Your task to perform on an android device: Open calendar and show me the third week of next month Image 0: 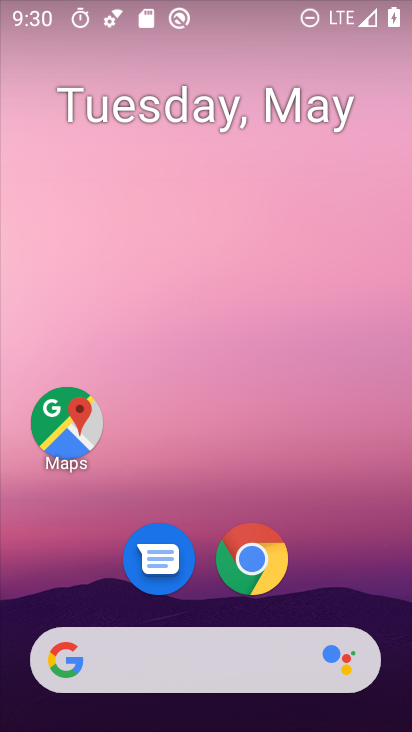
Step 0: drag from (378, 632) to (265, 47)
Your task to perform on an android device: Open calendar and show me the third week of next month Image 1: 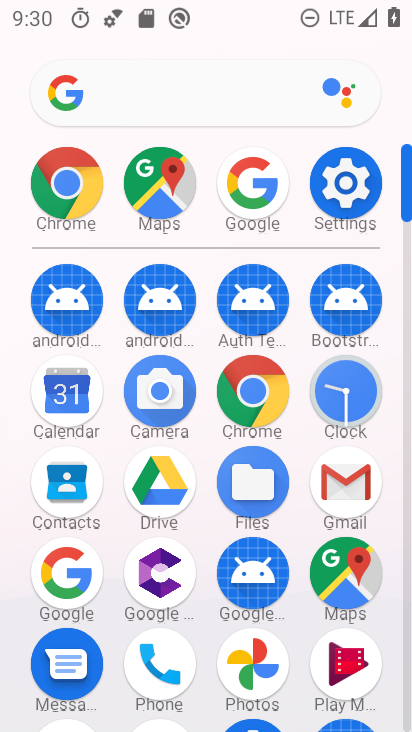
Step 1: click (59, 400)
Your task to perform on an android device: Open calendar and show me the third week of next month Image 2: 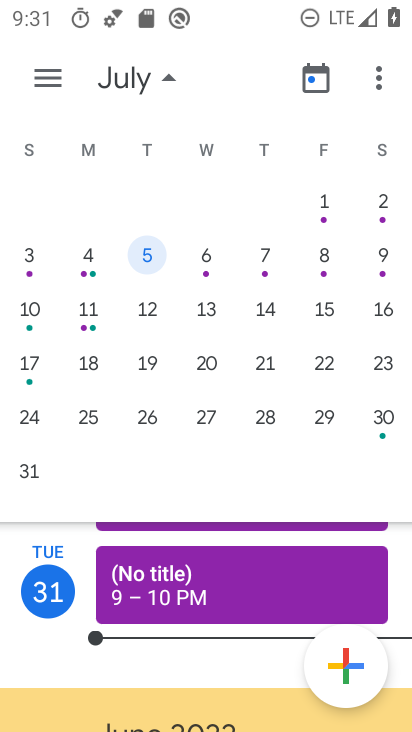
Step 2: drag from (349, 325) to (81, 308)
Your task to perform on an android device: Open calendar and show me the third week of next month Image 3: 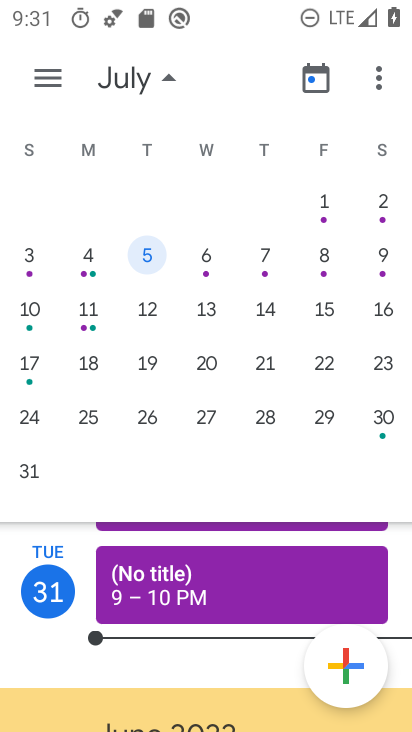
Step 3: drag from (356, 312) to (8, 311)
Your task to perform on an android device: Open calendar and show me the third week of next month Image 4: 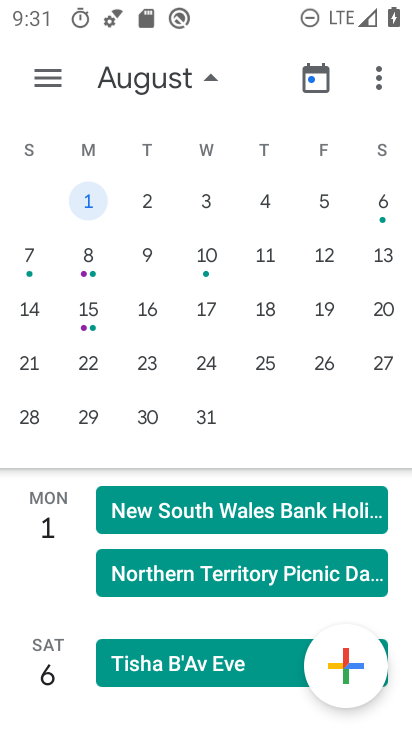
Step 4: click (88, 312)
Your task to perform on an android device: Open calendar and show me the third week of next month Image 5: 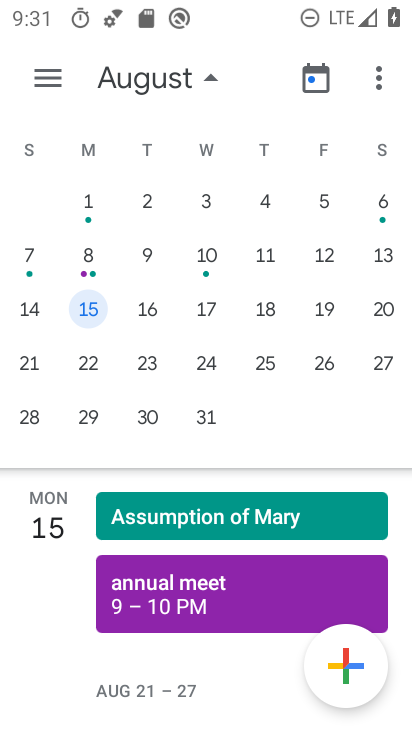
Step 5: click (148, 361)
Your task to perform on an android device: Open calendar and show me the third week of next month Image 6: 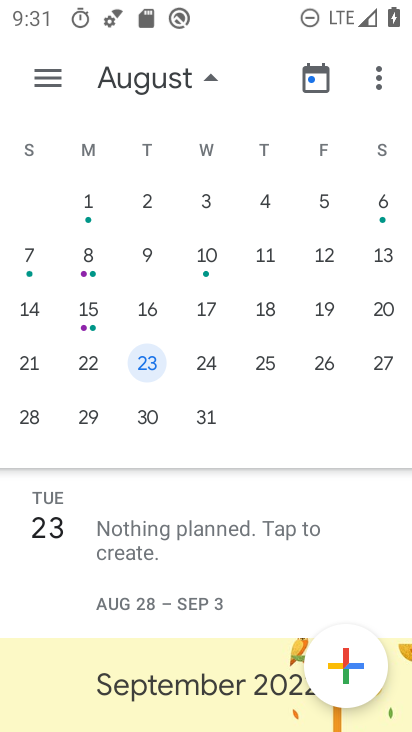
Step 6: task complete